Your task to perform on an android device: Add energizer triple a to the cart on bestbuy.com, then select checkout. Image 0: 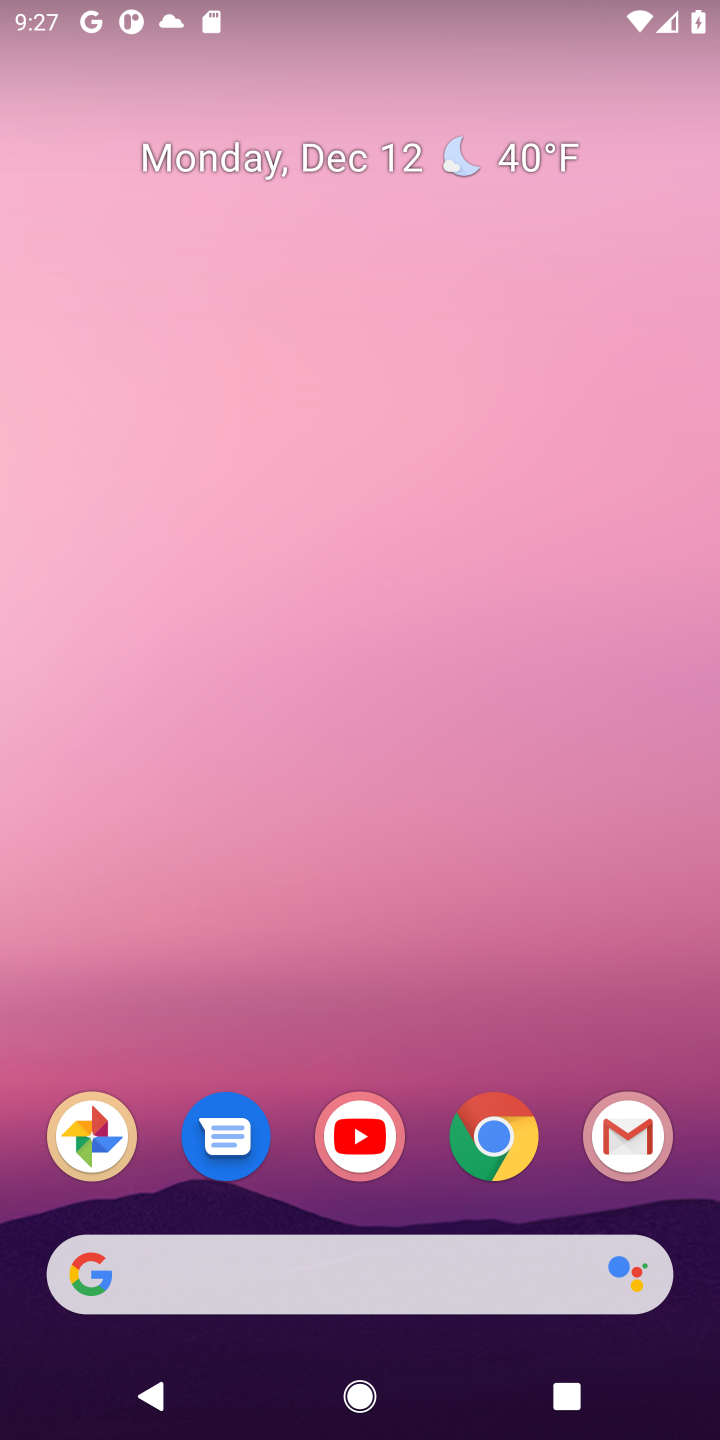
Step 0: click (503, 1139)
Your task to perform on an android device: Add energizer triple a to the cart on bestbuy.com, then select checkout. Image 1: 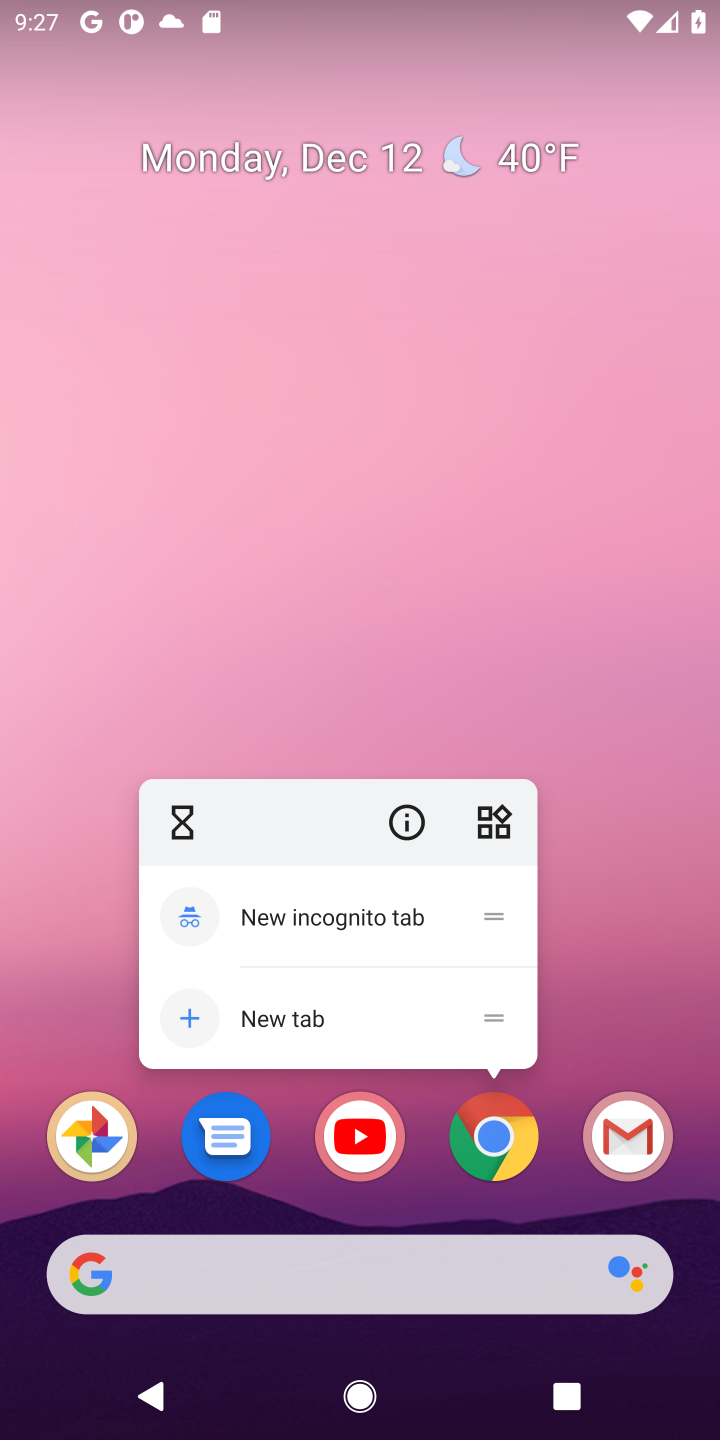
Step 1: click (582, 1054)
Your task to perform on an android device: Add energizer triple a to the cart on bestbuy.com, then select checkout. Image 2: 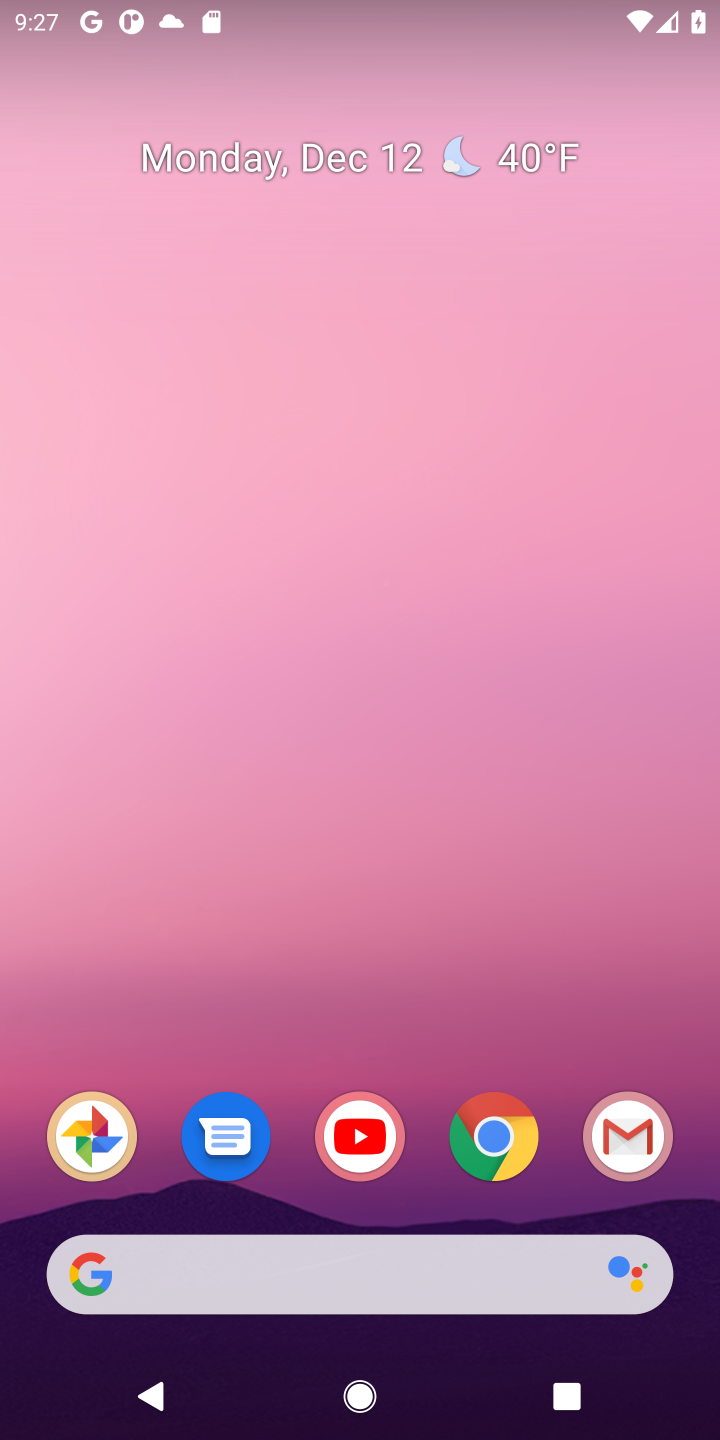
Step 2: click (493, 1142)
Your task to perform on an android device: Add energizer triple a to the cart on bestbuy.com, then select checkout. Image 3: 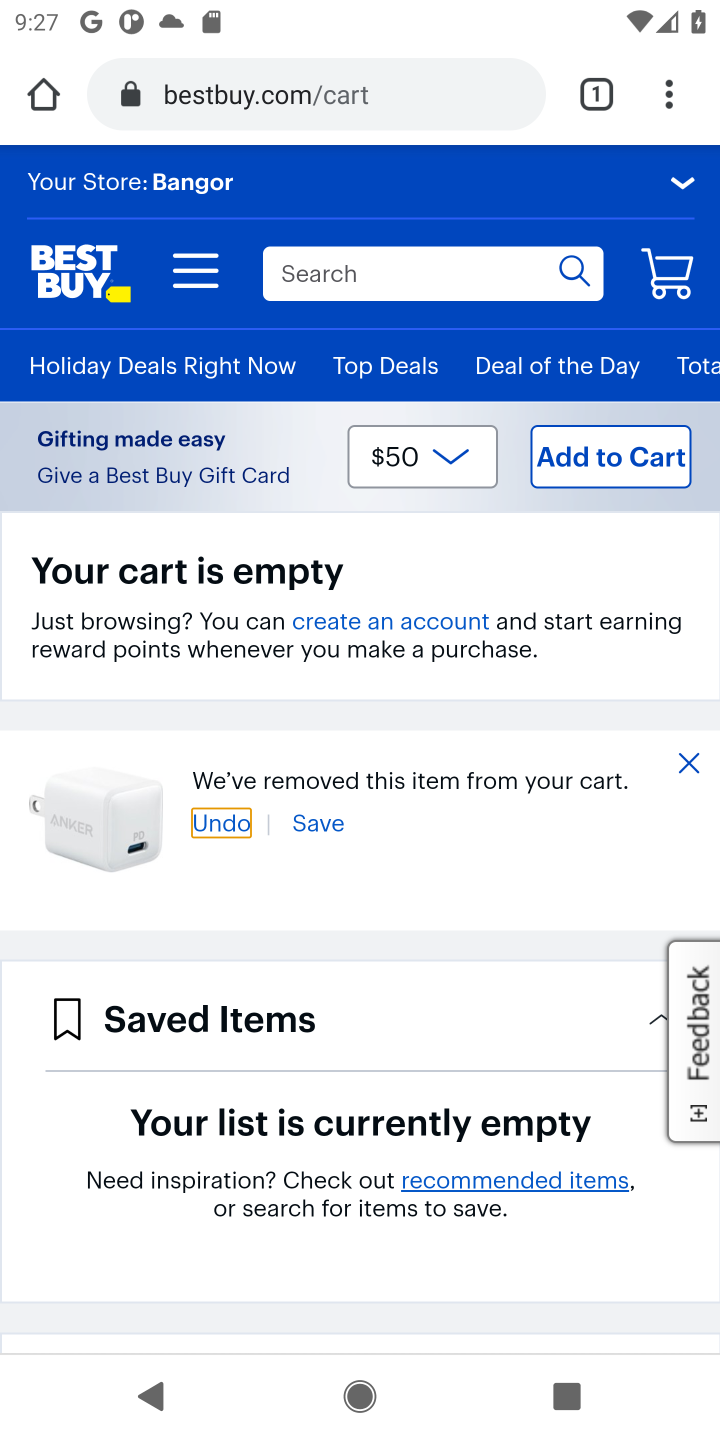
Step 3: click (329, 285)
Your task to perform on an android device: Add energizer triple a to the cart on bestbuy.com, then select checkout. Image 4: 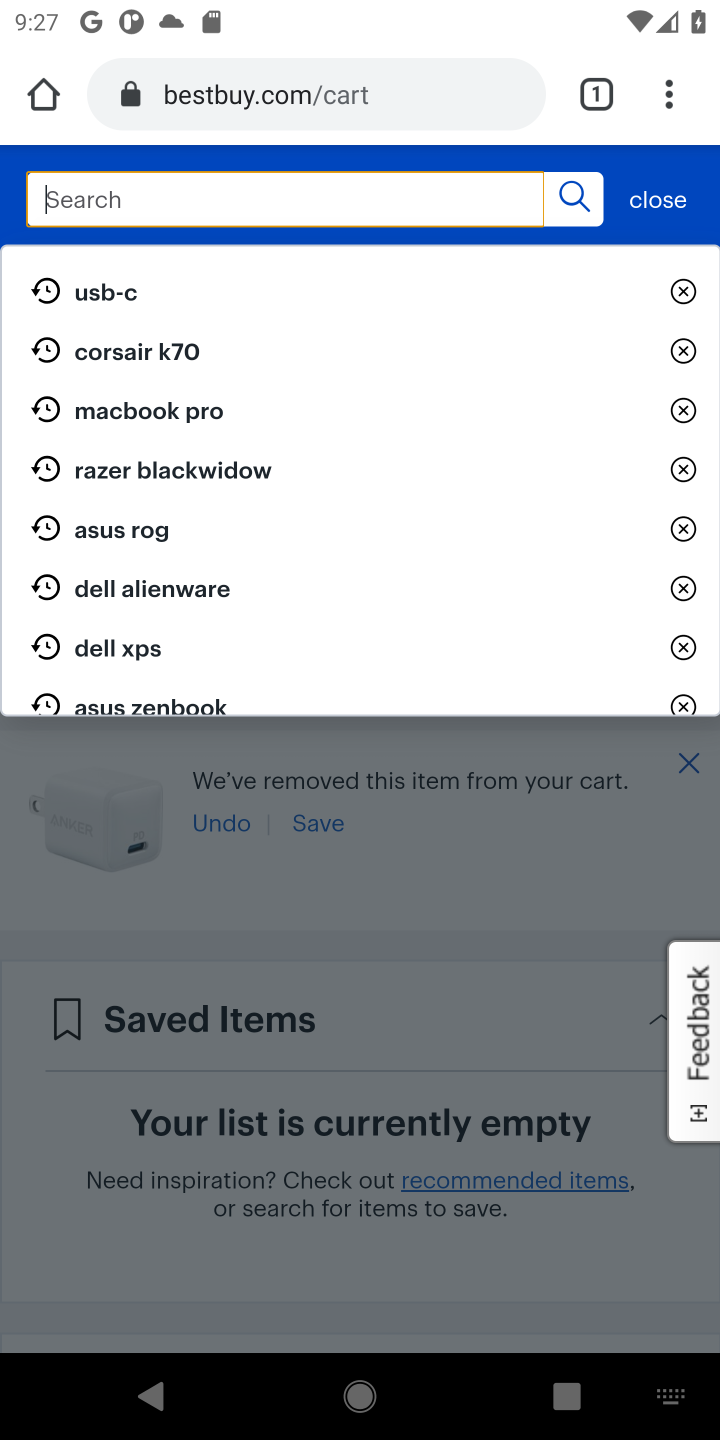
Step 4: type "energizer triple a "
Your task to perform on an android device: Add energizer triple a to the cart on bestbuy.com, then select checkout. Image 5: 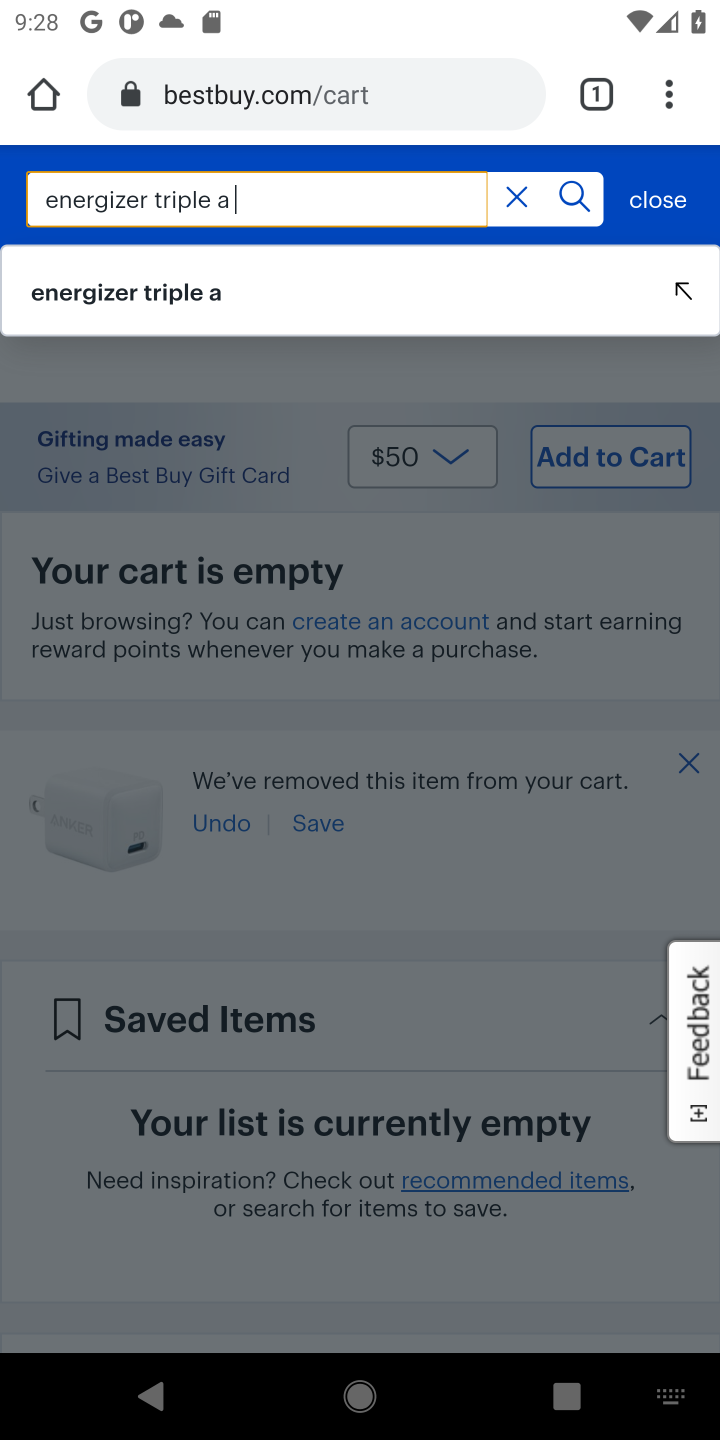
Step 5: click (173, 289)
Your task to perform on an android device: Add energizer triple a to the cart on bestbuy.com, then select checkout. Image 6: 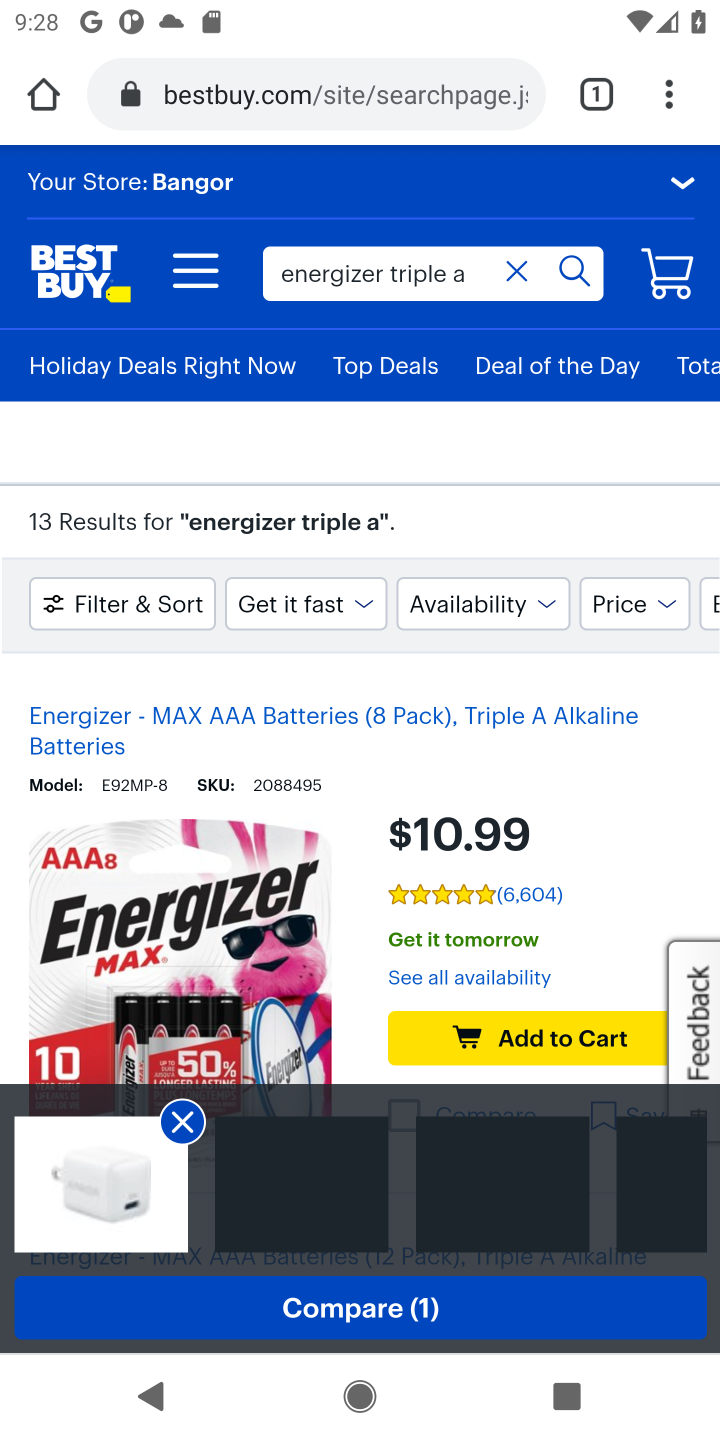
Step 6: drag from (293, 744) to (295, 397)
Your task to perform on an android device: Add energizer triple a to the cart on bestbuy.com, then select checkout. Image 7: 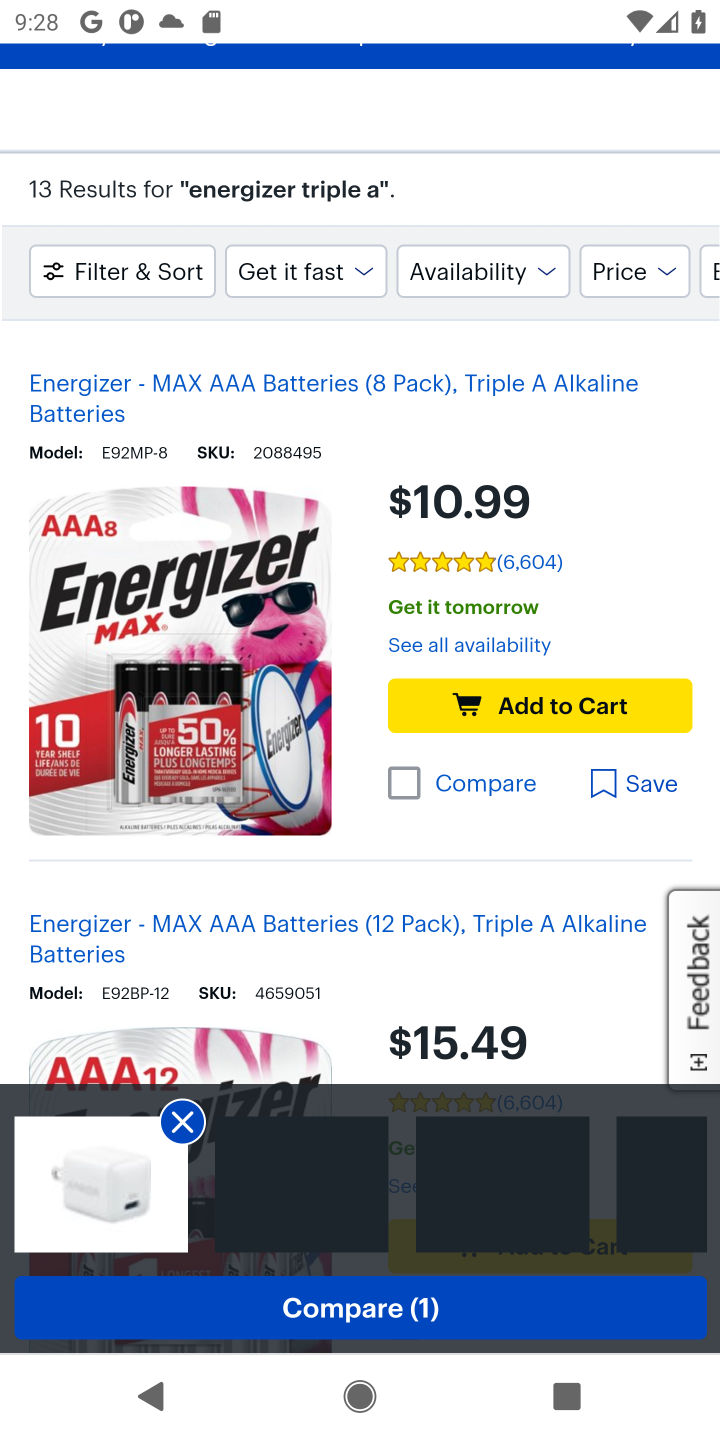
Step 7: click (524, 714)
Your task to perform on an android device: Add energizer triple a to the cart on bestbuy.com, then select checkout. Image 8: 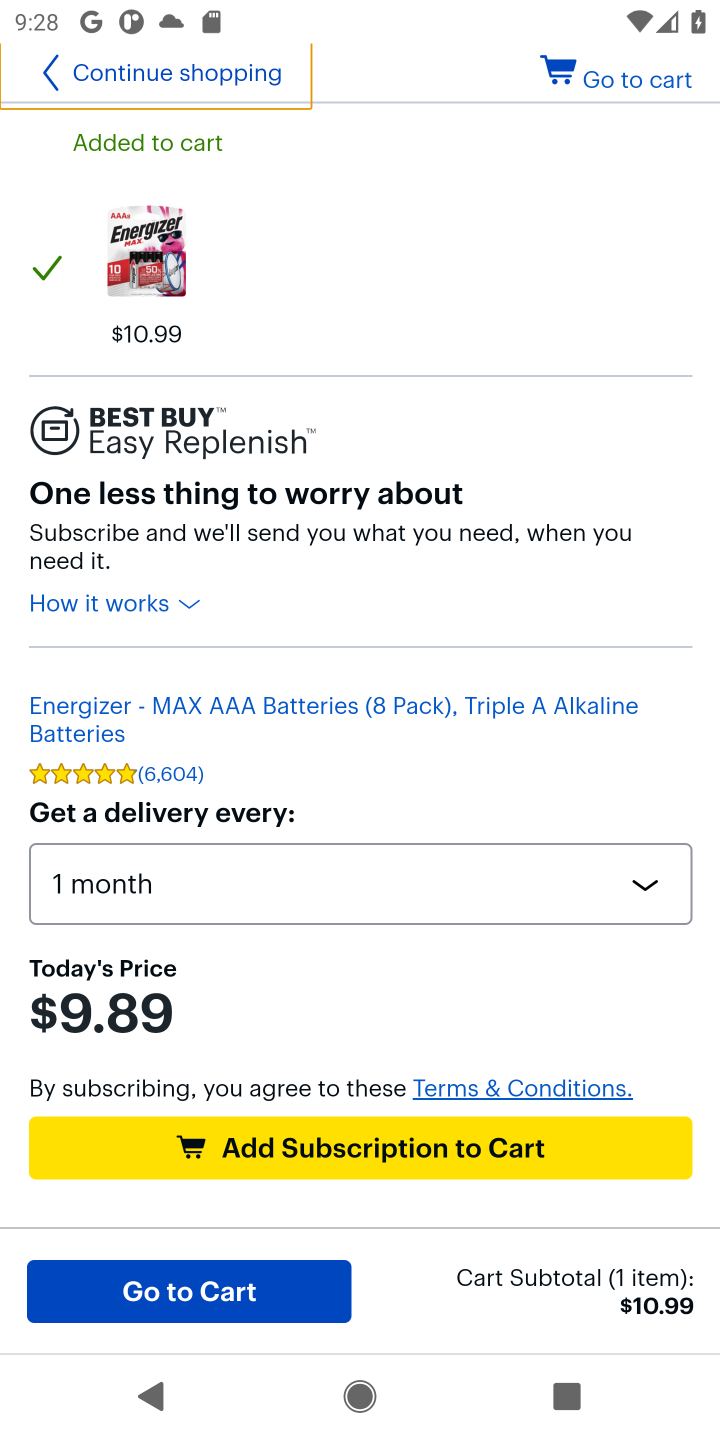
Step 8: click (637, 86)
Your task to perform on an android device: Add energizer triple a to the cart on bestbuy.com, then select checkout. Image 9: 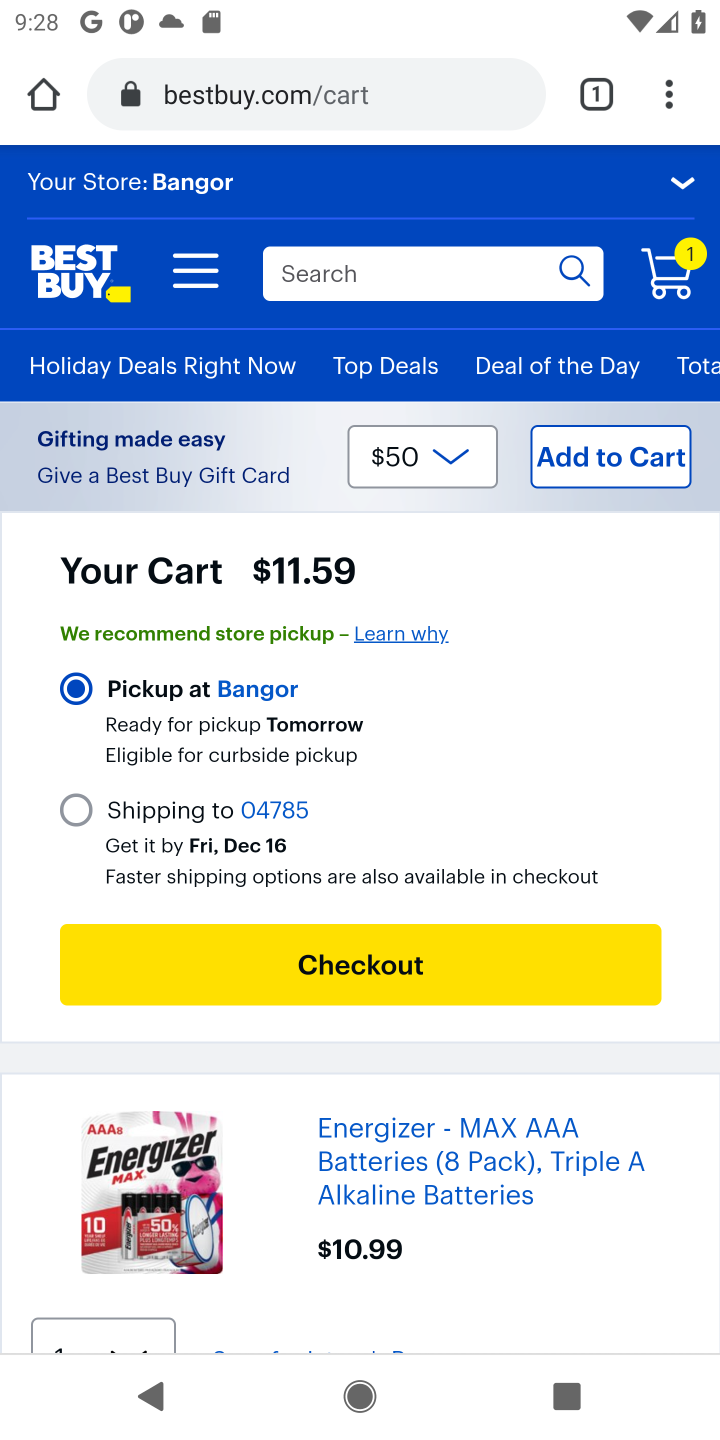
Step 9: click (322, 971)
Your task to perform on an android device: Add energizer triple a to the cart on bestbuy.com, then select checkout. Image 10: 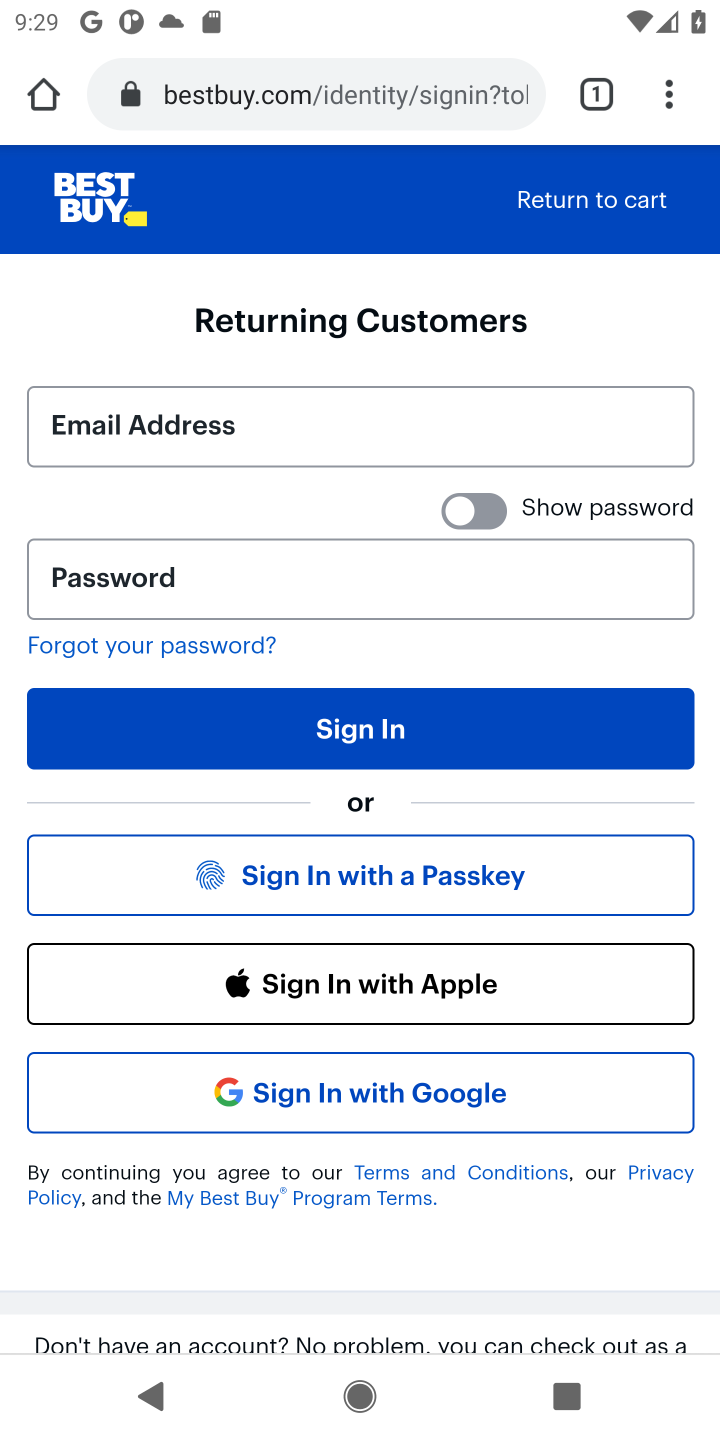
Step 10: task complete